Your task to perform on an android device: search for starred emails in the gmail app Image 0: 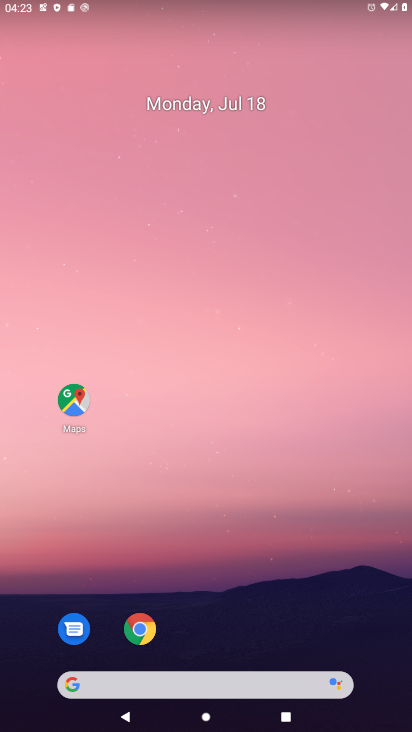
Step 0: drag from (390, 705) to (343, 211)
Your task to perform on an android device: search for starred emails in the gmail app Image 1: 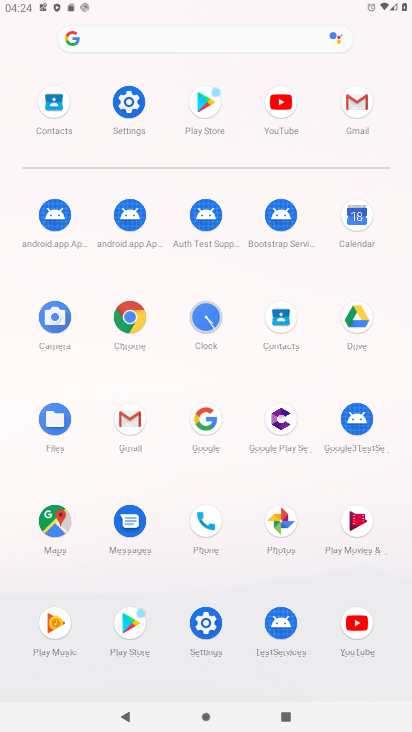
Step 1: click (120, 422)
Your task to perform on an android device: search for starred emails in the gmail app Image 2: 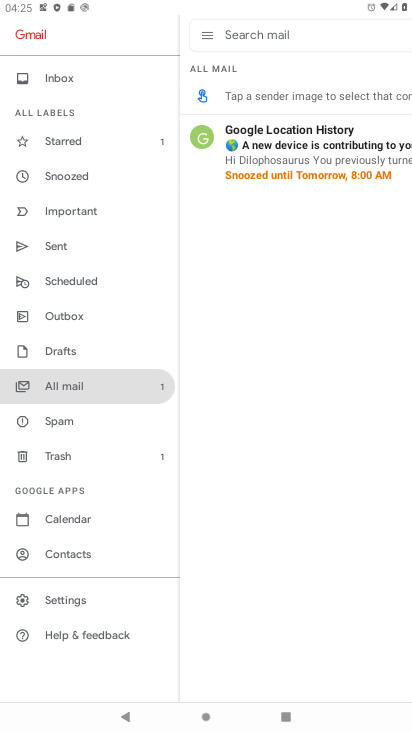
Step 2: click (23, 143)
Your task to perform on an android device: search for starred emails in the gmail app Image 3: 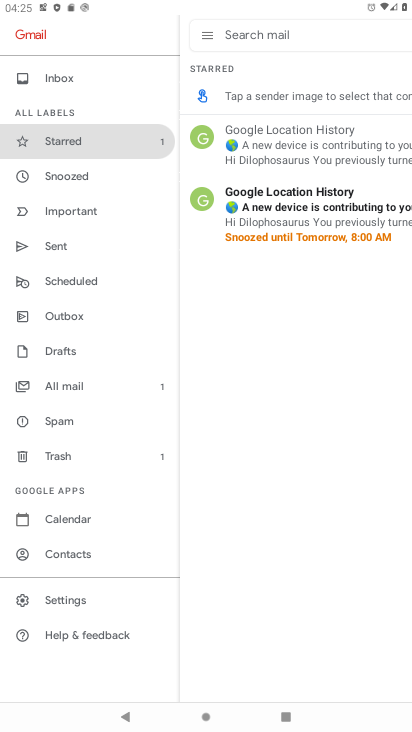
Step 3: click (22, 143)
Your task to perform on an android device: search for starred emails in the gmail app Image 4: 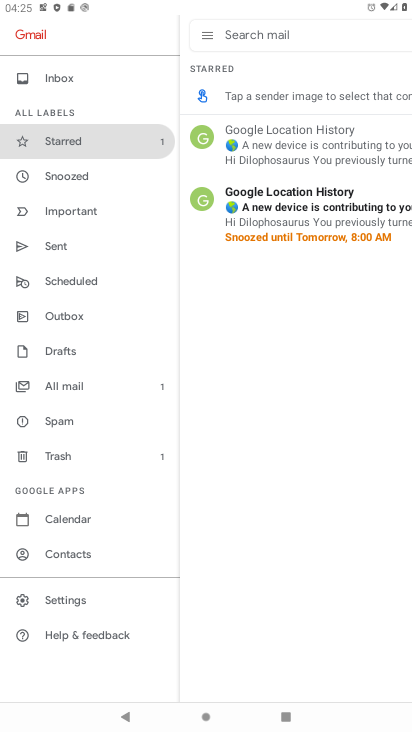
Step 4: click (19, 142)
Your task to perform on an android device: search for starred emails in the gmail app Image 5: 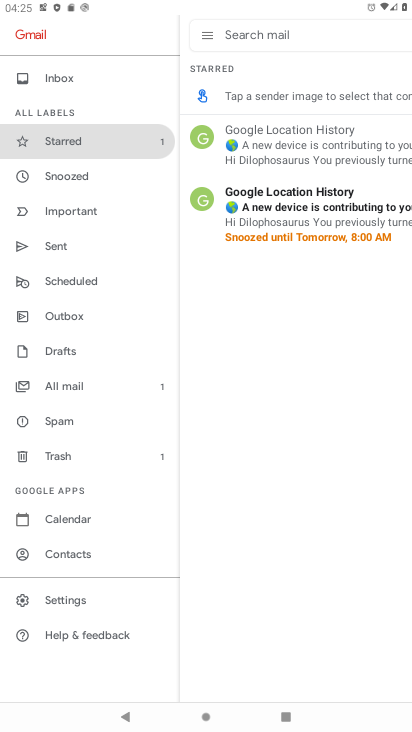
Step 5: click (21, 138)
Your task to perform on an android device: search for starred emails in the gmail app Image 6: 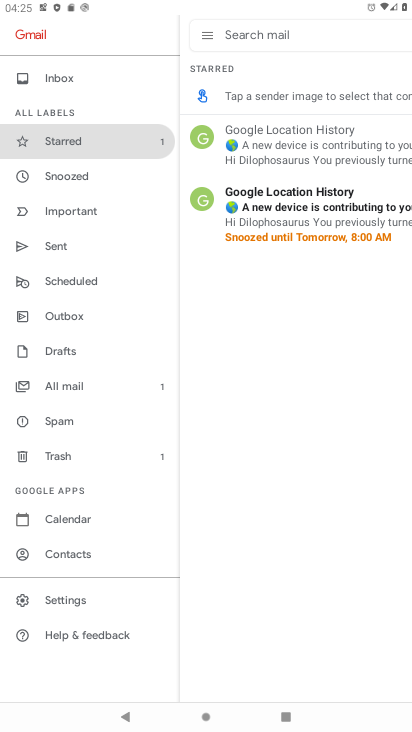
Step 6: task complete